Your task to perform on an android device: change the clock display to show seconds Image 0: 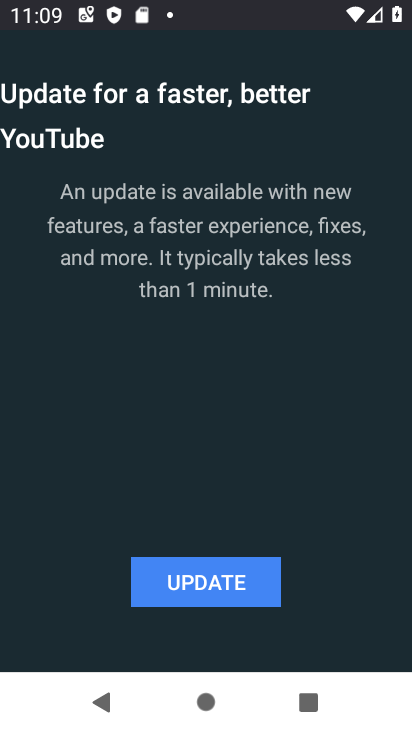
Step 0: press home button
Your task to perform on an android device: change the clock display to show seconds Image 1: 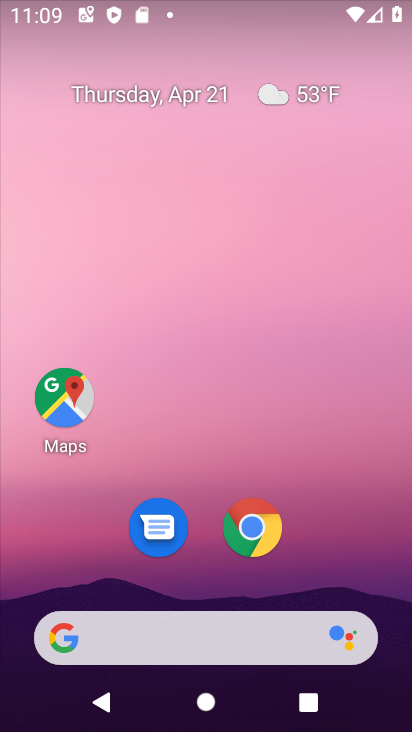
Step 1: drag from (354, 545) to (353, 136)
Your task to perform on an android device: change the clock display to show seconds Image 2: 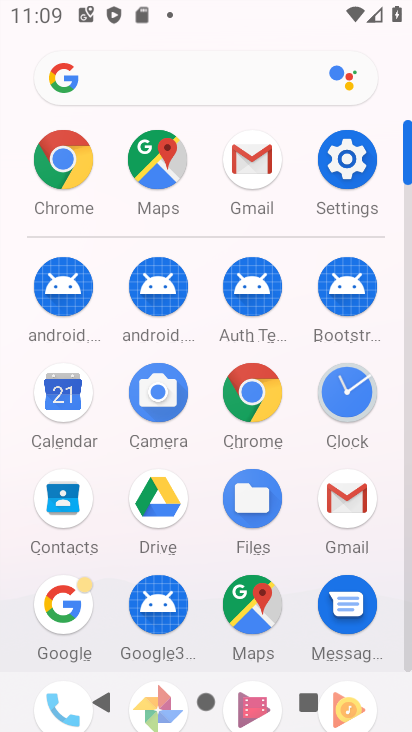
Step 2: click (340, 396)
Your task to perform on an android device: change the clock display to show seconds Image 3: 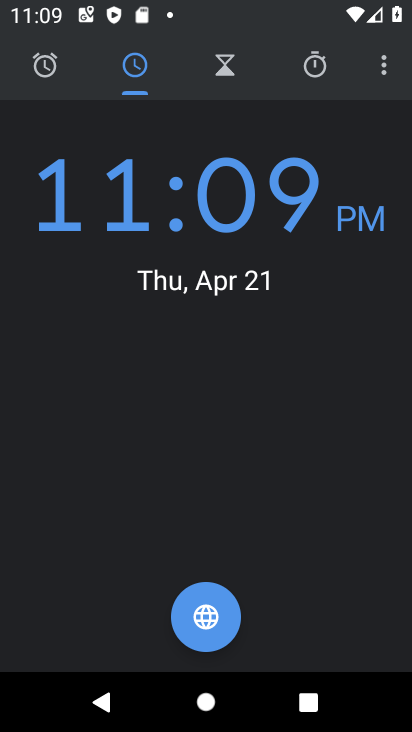
Step 3: click (383, 68)
Your task to perform on an android device: change the clock display to show seconds Image 4: 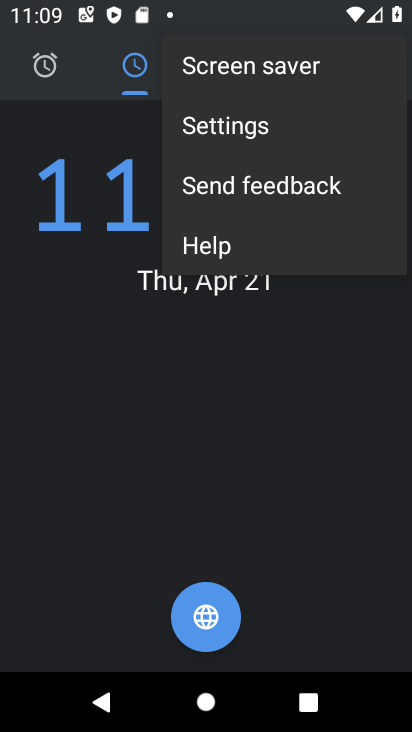
Step 4: click (289, 114)
Your task to perform on an android device: change the clock display to show seconds Image 5: 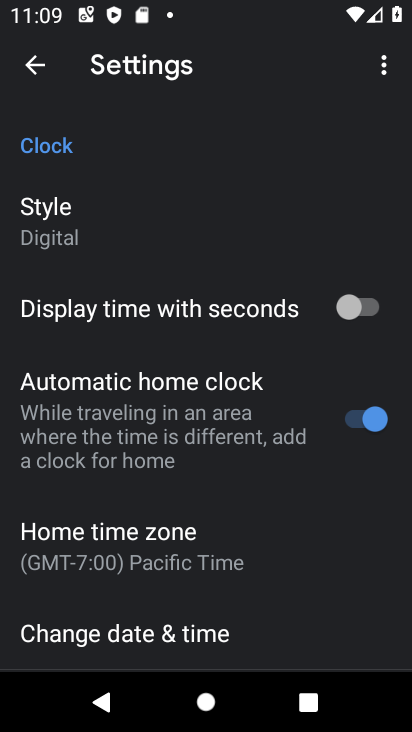
Step 5: drag from (308, 562) to (317, 425)
Your task to perform on an android device: change the clock display to show seconds Image 6: 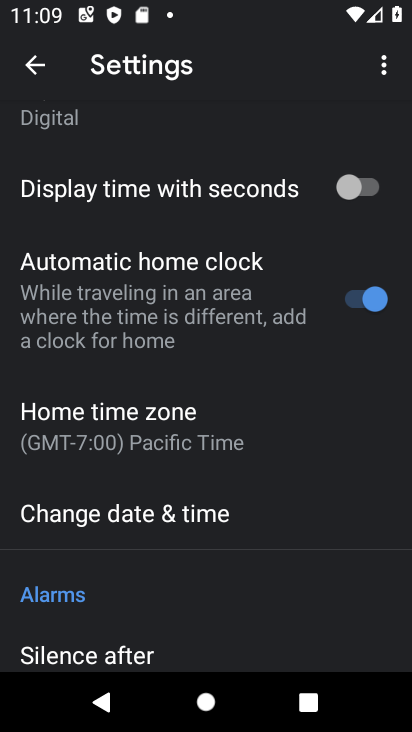
Step 6: drag from (313, 557) to (323, 415)
Your task to perform on an android device: change the clock display to show seconds Image 7: 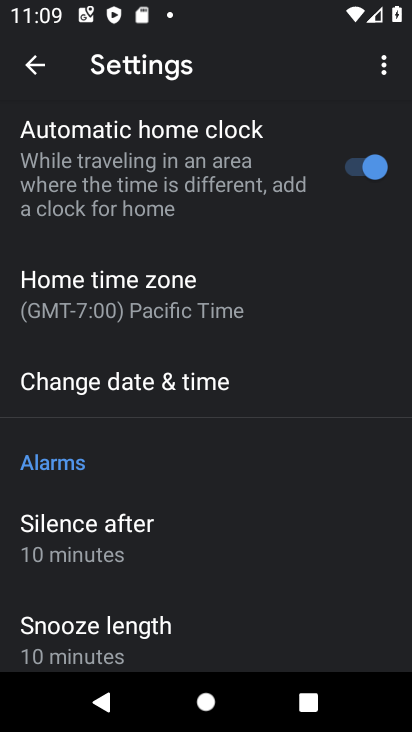
Step 7: drag from (306, 572) to (317, 420)
Your task to perform on an android device: change the clock display to show seconds Image 8: 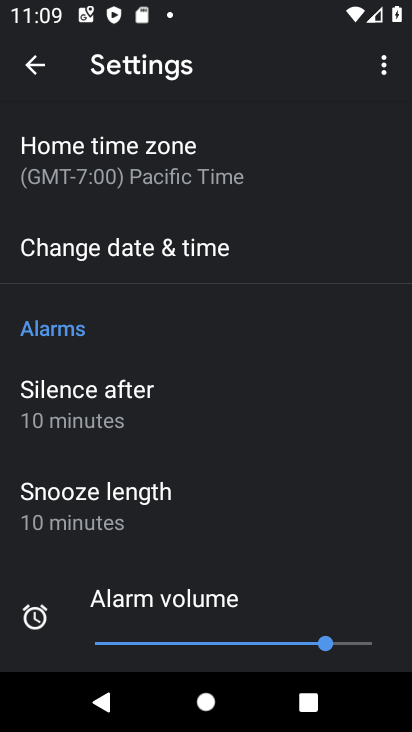
Step 8: drag from (296, 561) to (308, 341)
Your task to perform on an android device: change the clock display to show seconds Image 9: 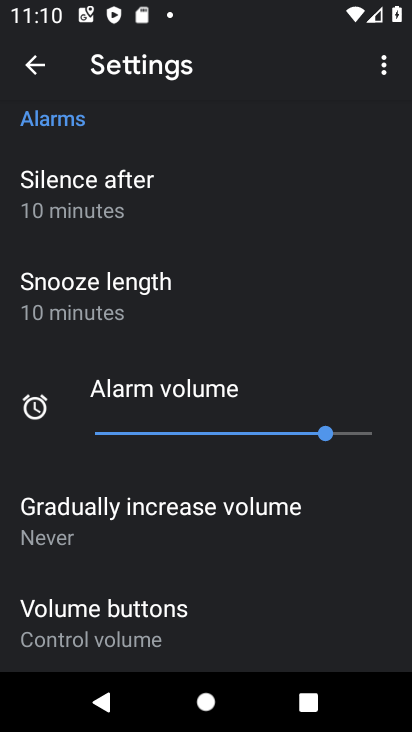
Step 9: drag from (311, 569) to (320, 399)
Your task to perform on an android device: change the clock display to show seconds Image 10: 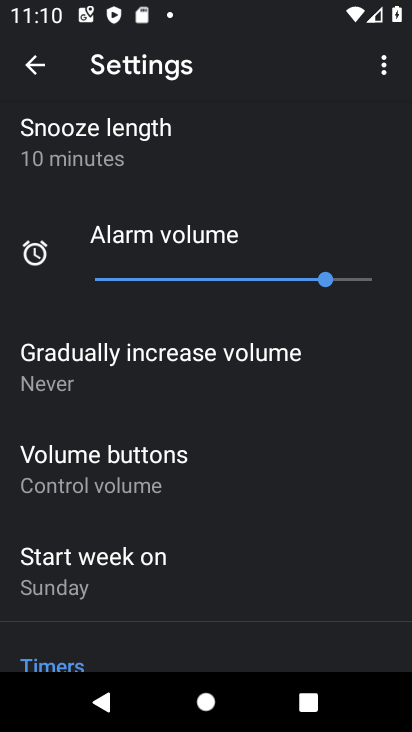
Step 10: drag from (293, 582) to (310, 418)
Your task to perform on an android device: change the clock display to show seconds Image 11: 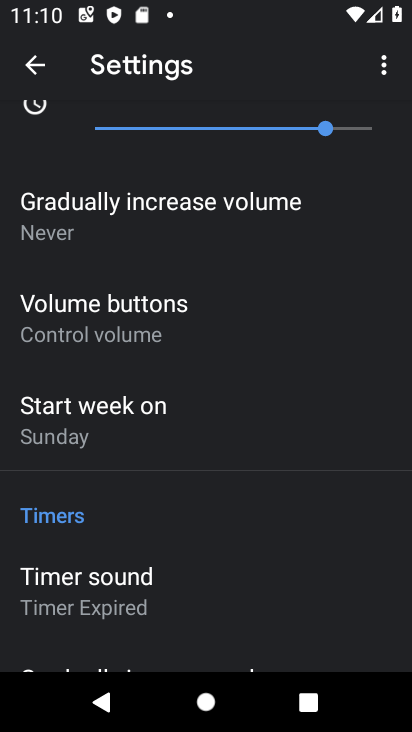
Step 11: drag from (303, 576) to (327, 401)
Your task to perform on an android device: change the clock display to show seconds Image 12: 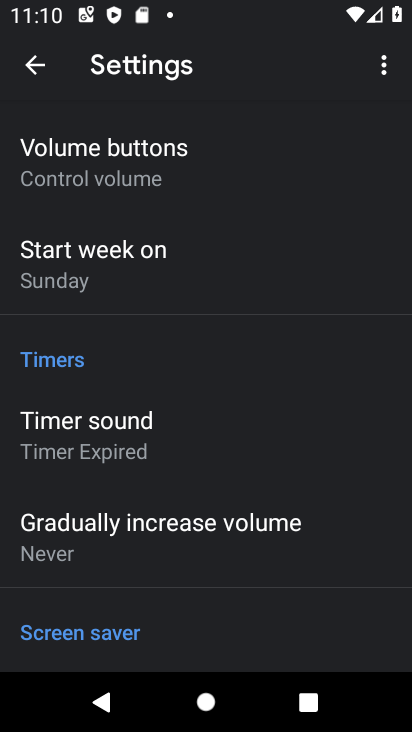
Step 12: drag from (331, 358) to (333, 487)
Your task to perform on an android device: change the clock display to show seconds Image 13: 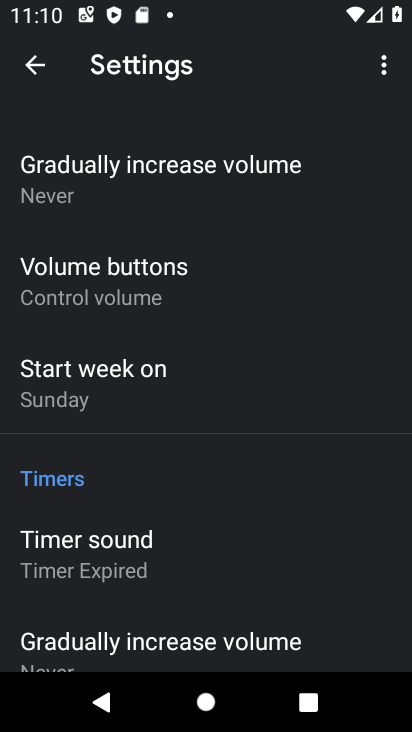
Step 13: drag from (341, 391) to (338, 505)
Your task to perform on an android device: change the clock display to show seconds Image 14: 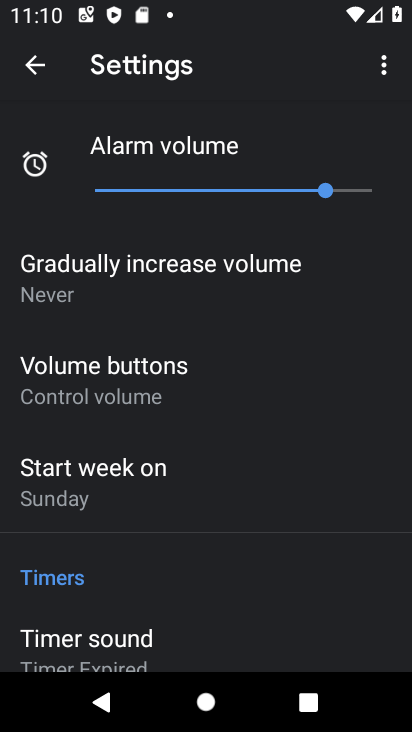
Step 14: drag from (332, 409) to (334, 519)
Your task to perform on an android device: change the clock display to show seconds Image 15: 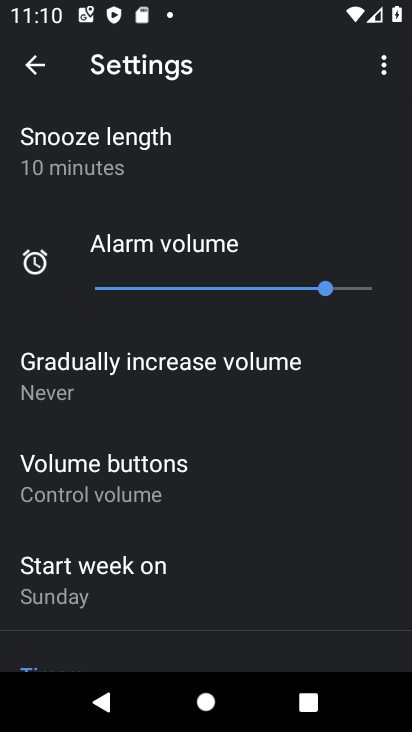
Step 15: drag from (346, 422) to (340, 534)
Your task to perform on an android device: change the clock display to show seconds Image 16: 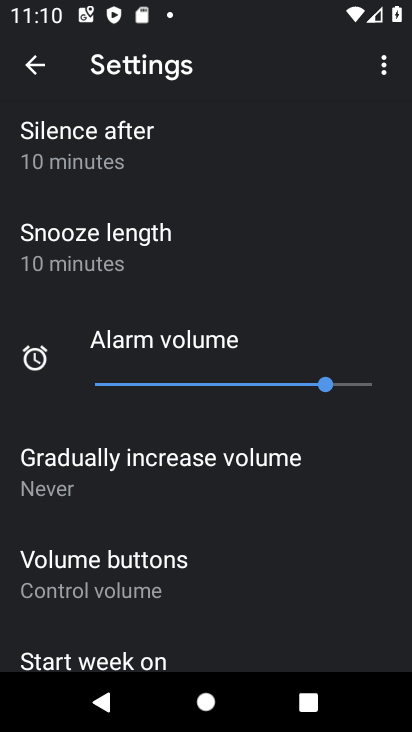
Step 16: drag from (343, 450) to (335, 571)
Your task to perform on an android device: change the clock display to show seconds Image 17: 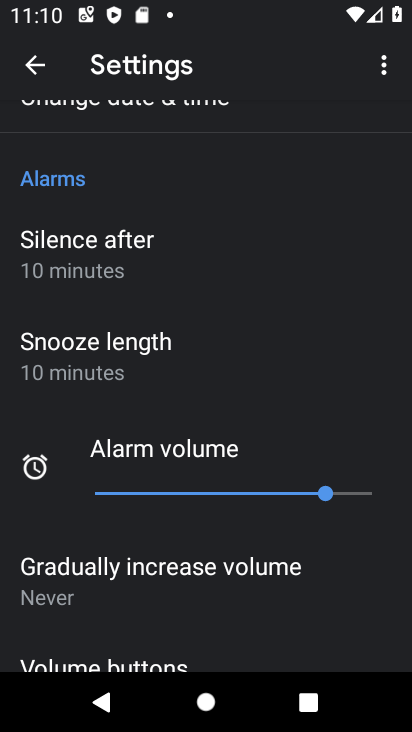
Step 17: drag from (319, 381) to (314, 474)
Your task to perform on an android device: change the clock display to show seconds Image 18: 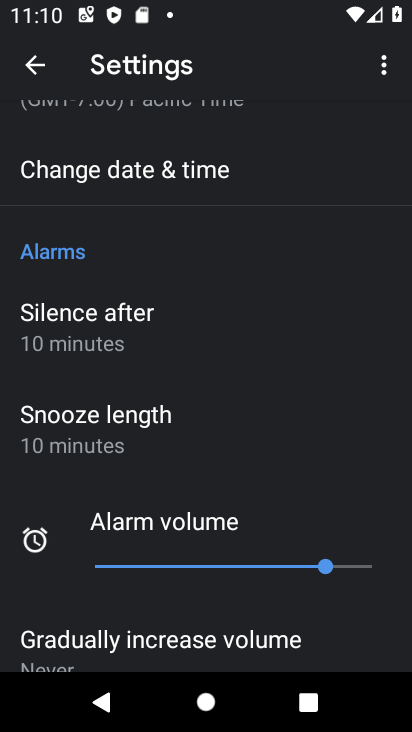
Step 18: drag from (304, 426) to (304, 535)
Your task to perform on an android device: change the clock display to show seconds Image 19: 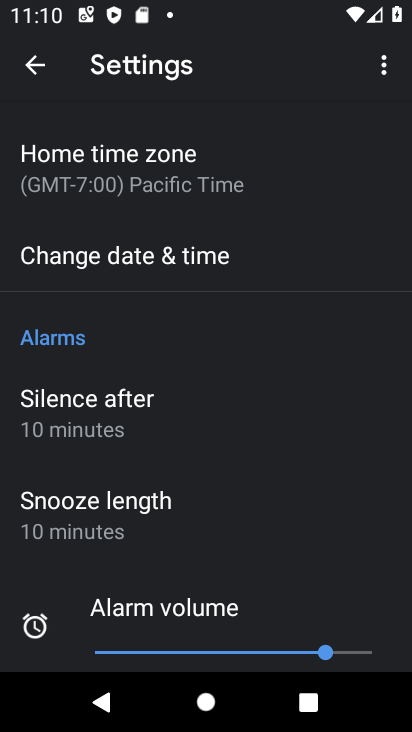
Step 19: drag from (305, 416) to (300, 537)
Your task to perform on an android device: change the clock display to show seconds Image 20: 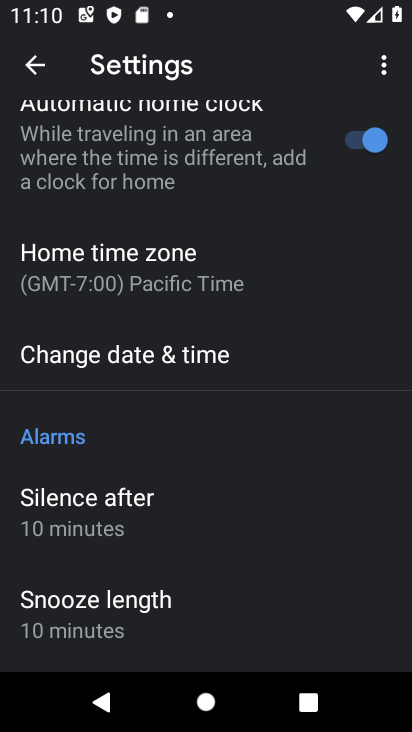
Step 20: drag from (288, 421) to (290, 516)
Your task to perform on an android device: change the clock display to show seconds Image 21: 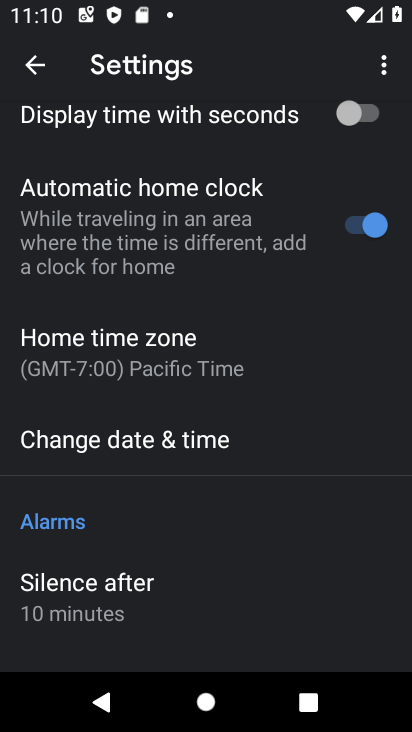
Step 21: drag from (286, 405) to (280, 526)
Your task to perform on an android device: change the clock display to show seconds Image 22: 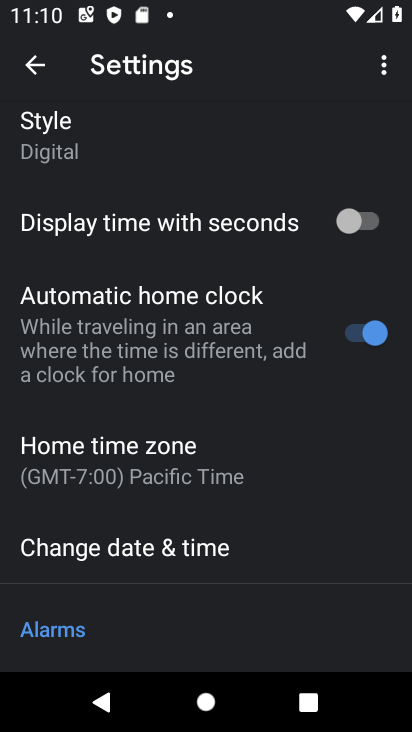
Step 22: drag from (298, 425) to (297, 551)
Your task to perform on an android device: change the clock display to show seconds Image 23: 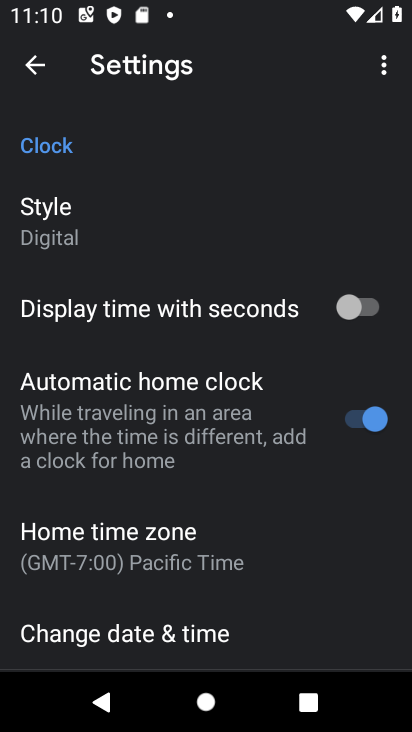
Step 23: drag from (319, 395) to (310, 542)
Your task to perform on an android device: change the clock display to show seconds Image 24: 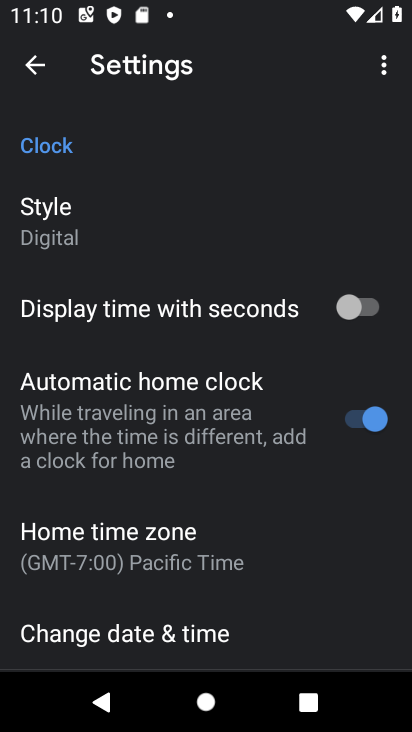
Step 24: click (341, 311)
Your task to perform on an android device: change the clock display to show seconds Image 25: 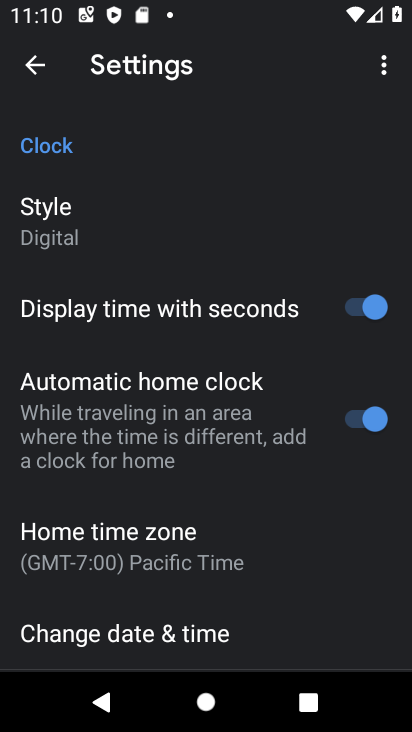
Step 25: task complete